Your task to perform on an android device: Search for hotels in Boston Image 0: 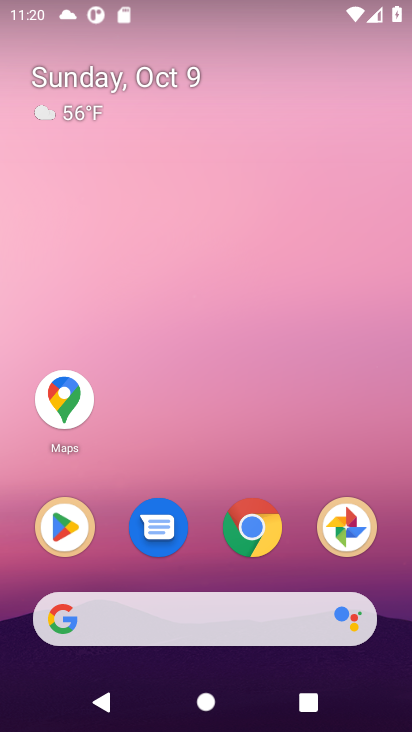
Step 0: click (254, 532)
Your task to perform on an android device: Search for hotels in Boston Image 1: 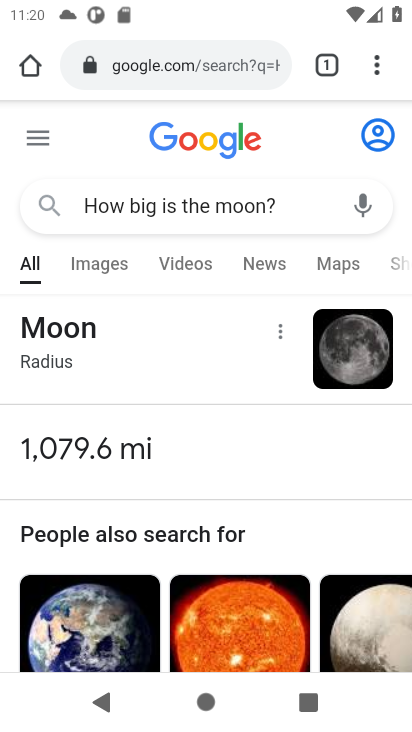
Step 1: click (154, 74)
Your task to perform on an android device: Search for hotels in Boston Image 2: 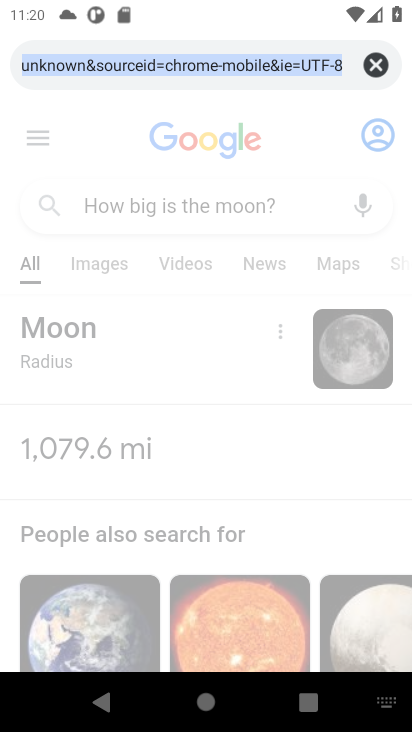
Step 2: click (384, 62)
Your task to perform on an android device: Search for hotels in Boston Image 3: 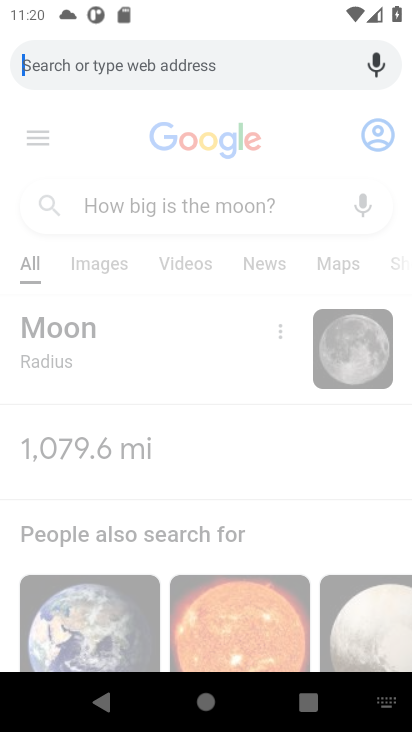
Step 3: type "hotels in Boston"
Your task to perform on an android device: Search for hotels in Boston Image 4: 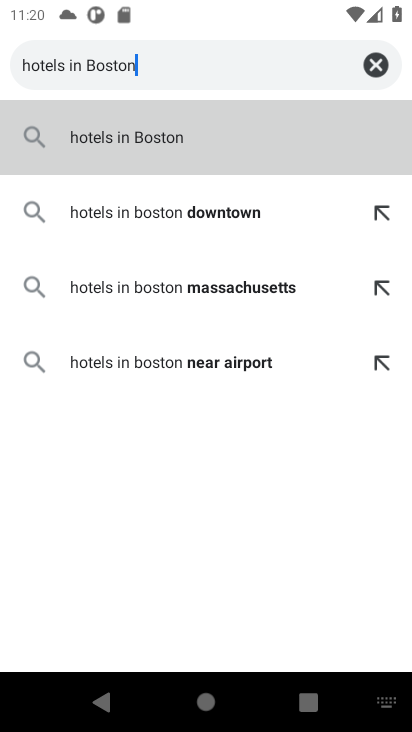
Step 4: click (153, 136)
Your task to perform on an android device: Search for hotels in Boston Image 5: 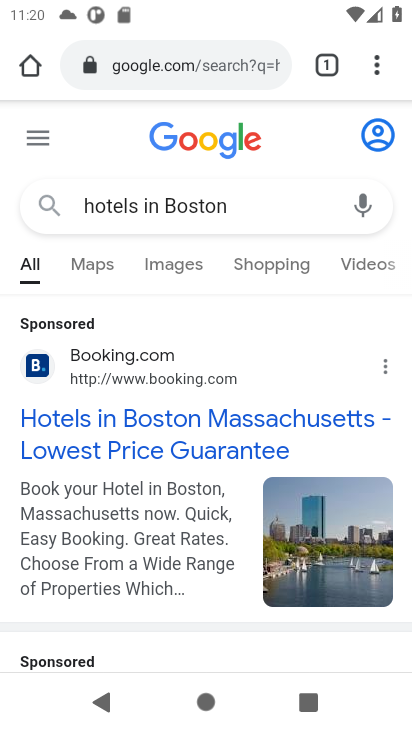
Step 5: click (102, 455)
Your task to perform on an android device: Search for hotels in Boston Image 6: 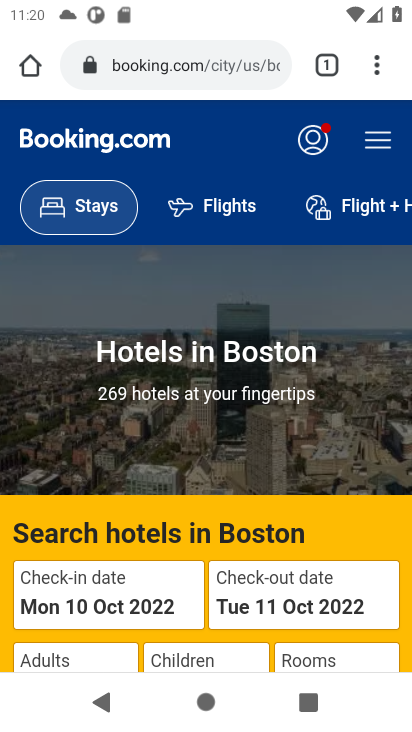
Step 6: task complete